Your task to perform on an android device: turn off improve location accuracy Image 0: 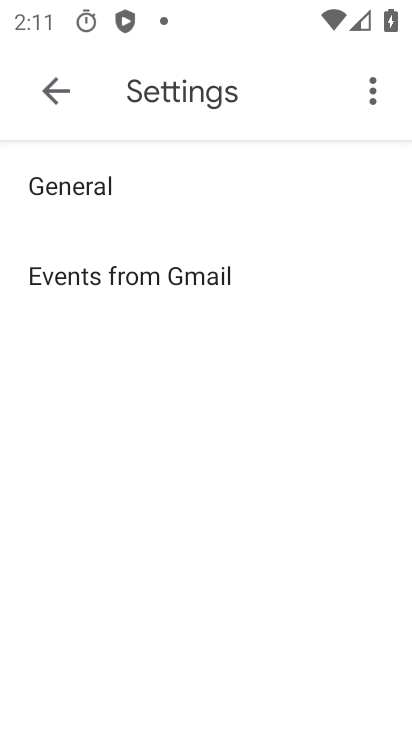
Step 0: click (49, 86)
Your task to perform on an android device: turn off improve location accuracy Image 1: 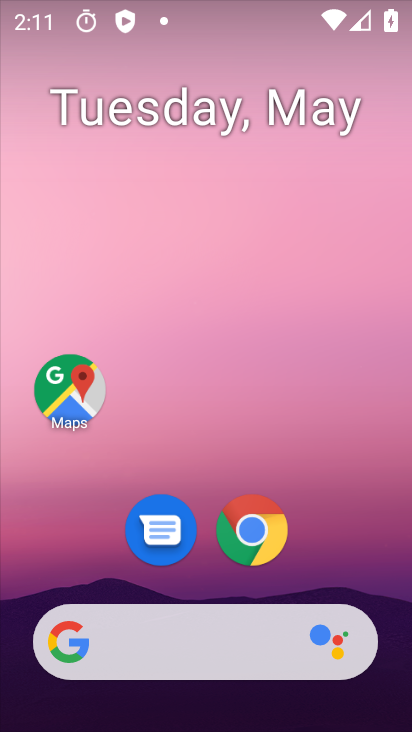
Step 1: drag from (208, 585) to (132, 37)
Your task to perform on an android device: turn off improve location accuracy Image 2: 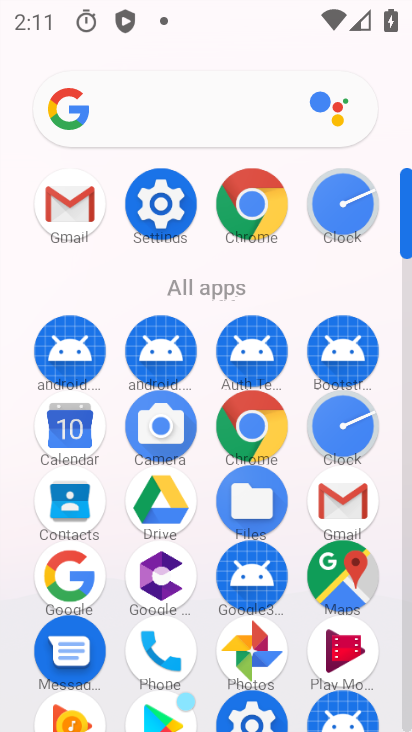
Step 2: click (153, 204)
Your task to perform on an android device: turn off improve location accuracy Image 3: 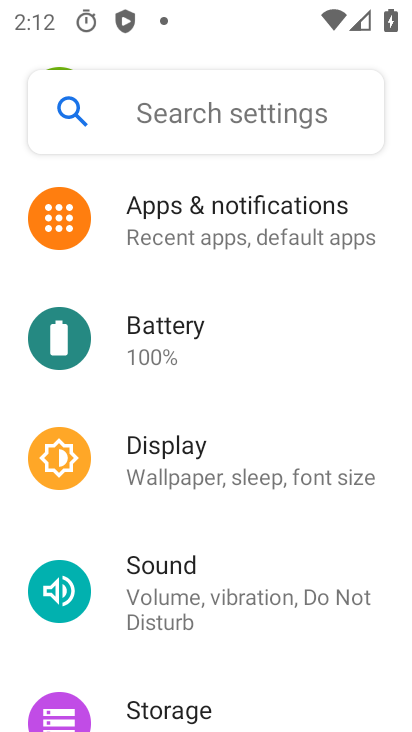
Step 3: drag from (222, 659) to (156, 166)
Your task to perform on an android device: turn off improve location accuracy Image 4: 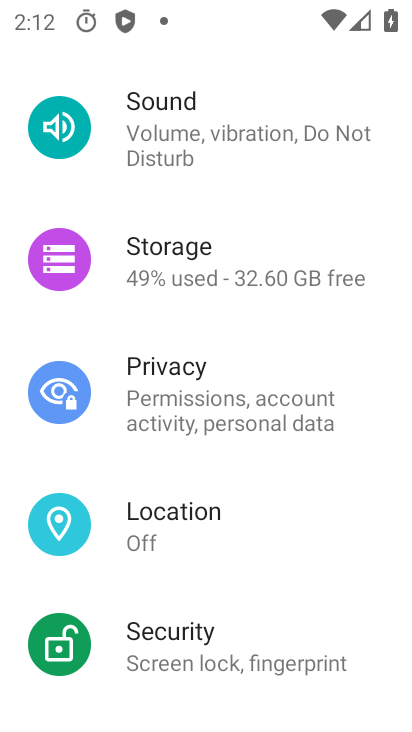
Step 4: click (168, 531)
Your task to perform on an android device: turn off improve location accuracy Image 5: 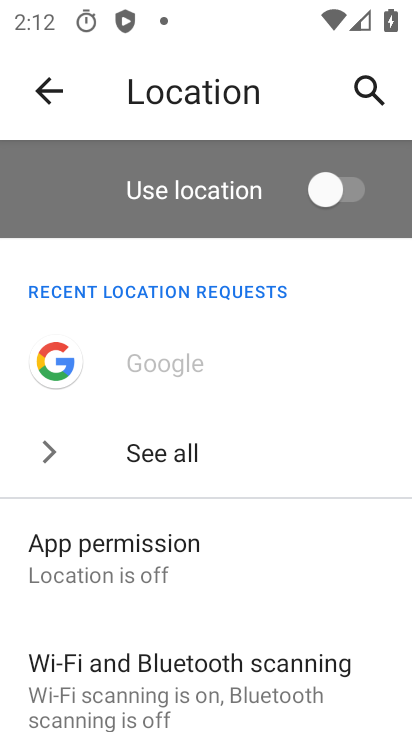
Step 5: drag from (211, 654) to (172, 339)
Your task to perform on an android device: turn off improve location accuracy Image 6: 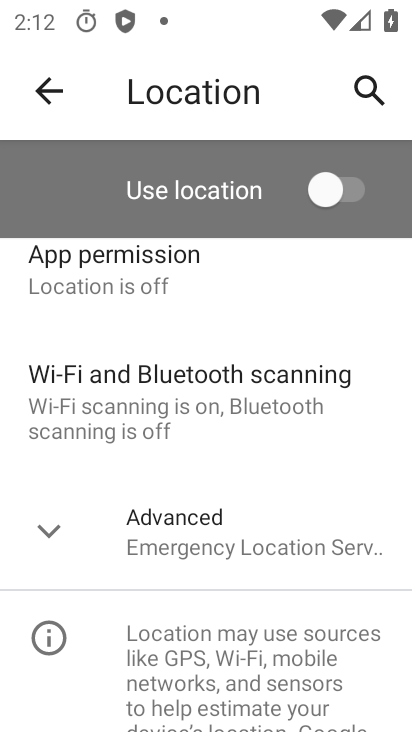
Step 6: click (158, 611)
Your task to perform on an android device: turn off improve location accuracy Image 7: 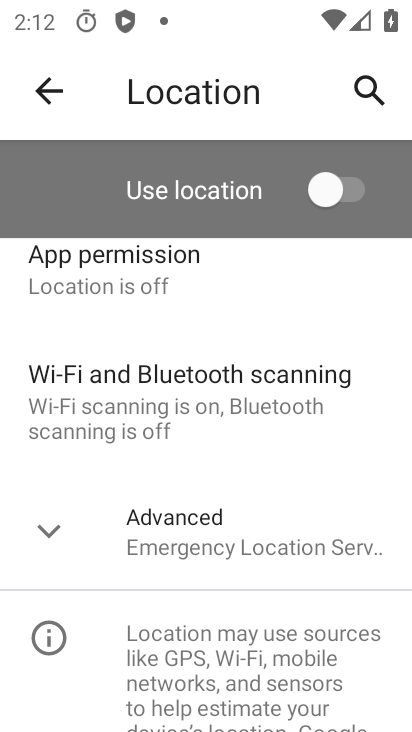
Step 7: click (182, 536)
Your task to perform on an android device: turn off improve location accuracy Image 8: 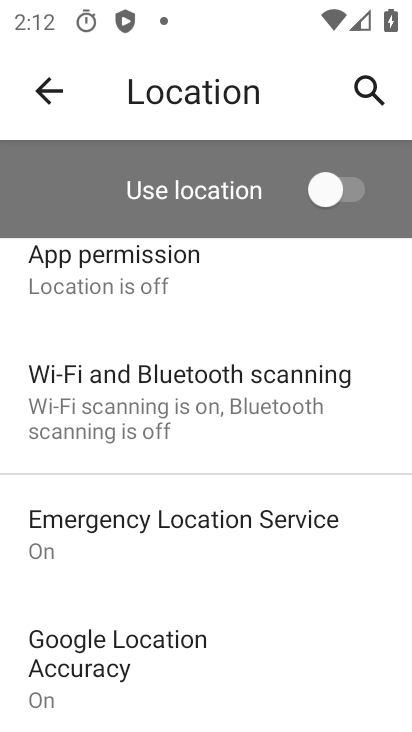
Step 8: click (153, 683)
Your task to perform on an android device: turn off improve location accuracy Image 9: 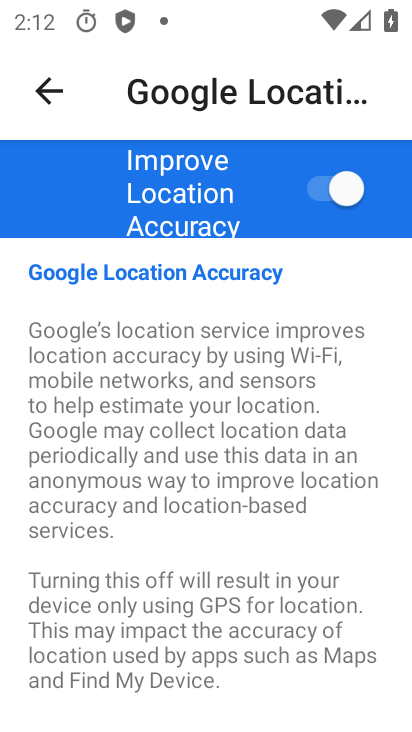
Step 9: click (329, 186)
Your task to perform on an android device: turn off improve location accuracy Image 10: 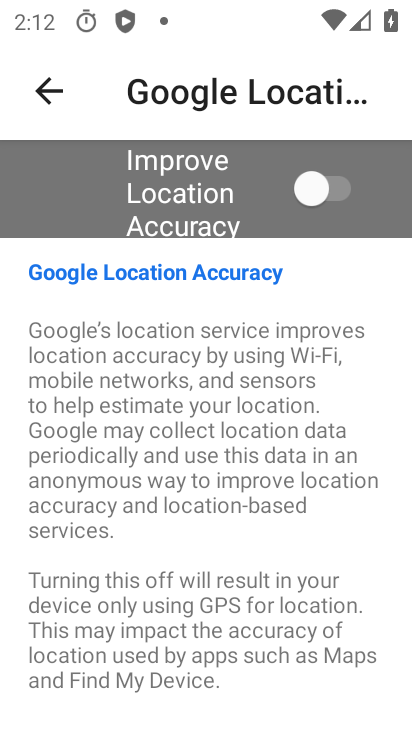
Step 10: task complete